Your task to perform on an android device: turn on bluetooth scan Image 0: 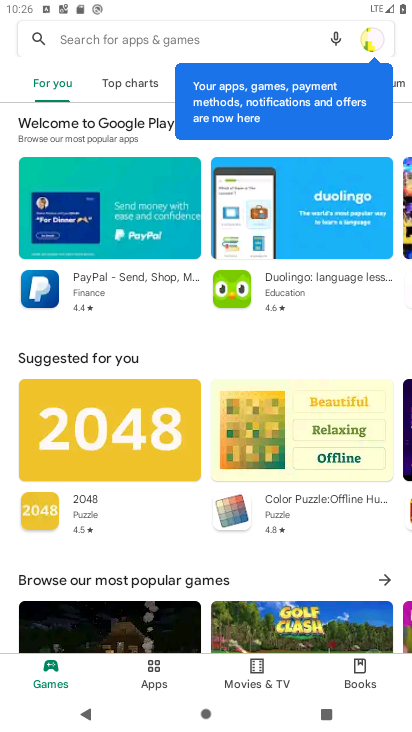
Step 0: press home button
Your task to perform on an android device: turn on bluetooth scan Image 1: 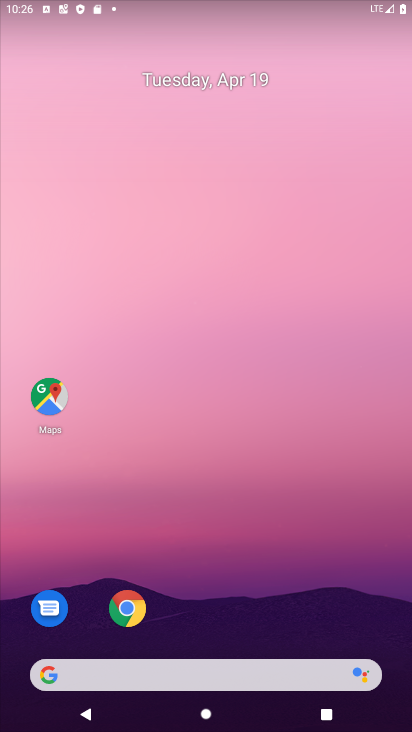
Step 1: drag from (351, 606) to (317, 66)
Your task to perform on an android device: turn on bluetooth scan Image 2: 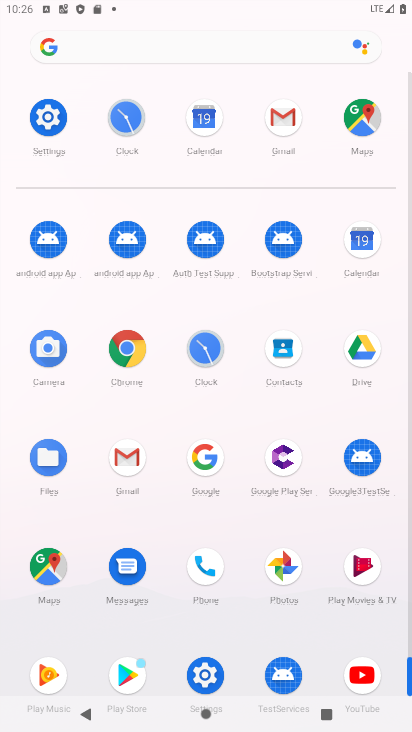
Step 2: click (203, 676)
Your task to perform on an android device: turn on bluetooth scan Image 3: 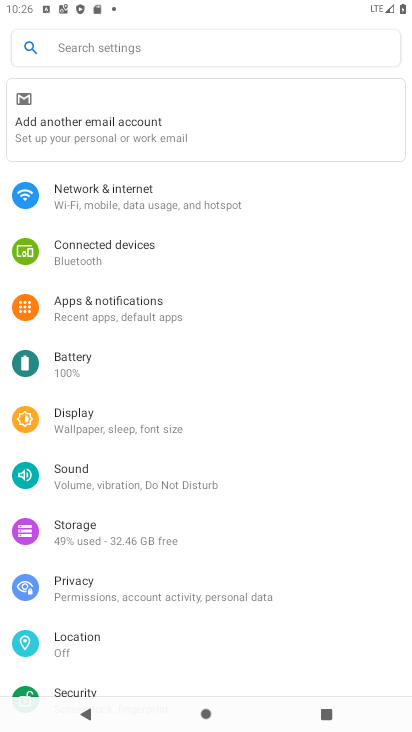
Step 3: click (71, 647)
Your task to perform on an android device: turn on bluetooth scan Image 4: 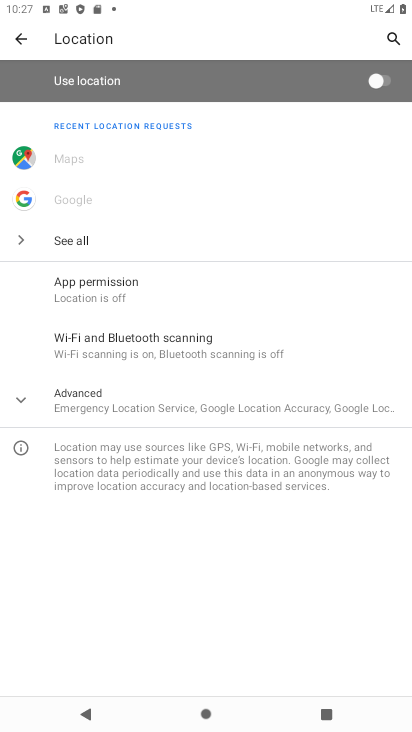
Step 4: click (111, 340)
Your task to perform on an android device: turn on bluetooth scan Image 5: 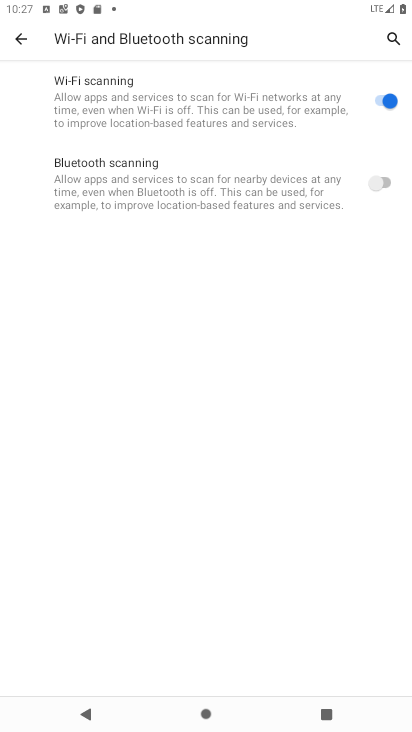
Step 5: click (384, 180)
Your task to perform on an android device: turn on bluetooth scan Image 6: 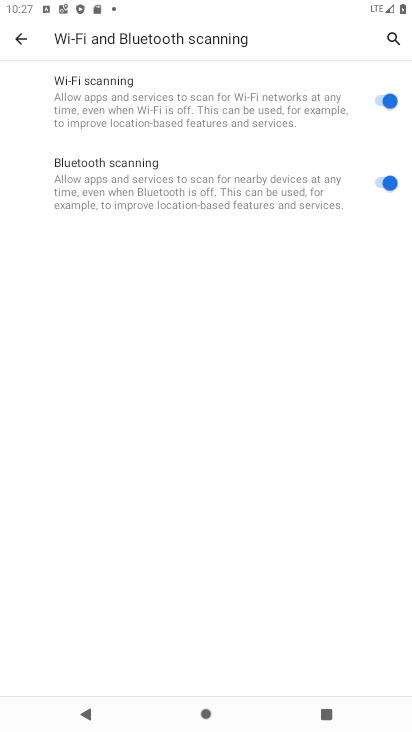
Step 6: task complete